Your task to perform on an android device: Open the web browser Image 0: 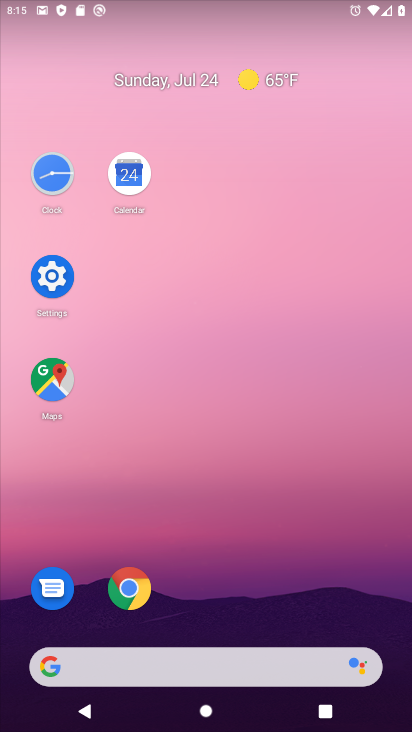
Step 0: click (137, 587)
Your task to perform on an android device: Open the web browser Image 1: 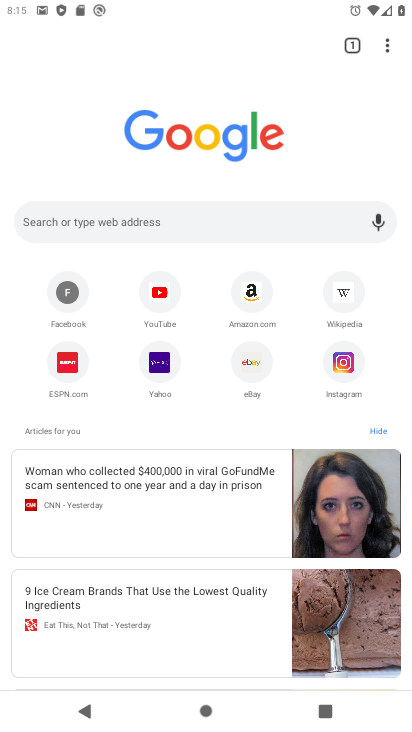
Step 1: task complete